Your task to perform on an android device: turn off wifi Image 0: 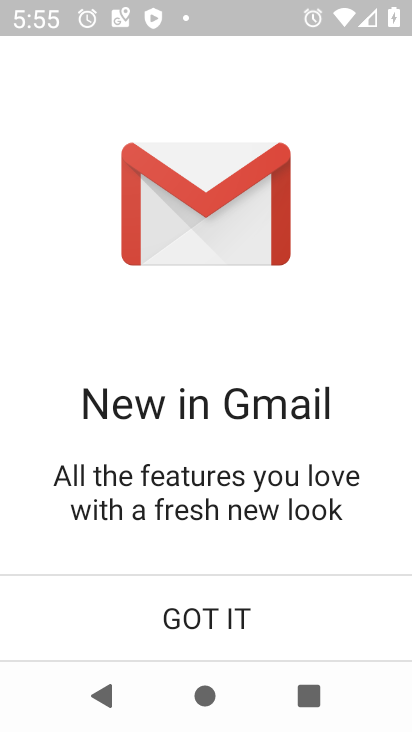
Step 0: drag from (196, 0) to (155, 493)
Your task to perform on an android device: turn off wifi Image 1: 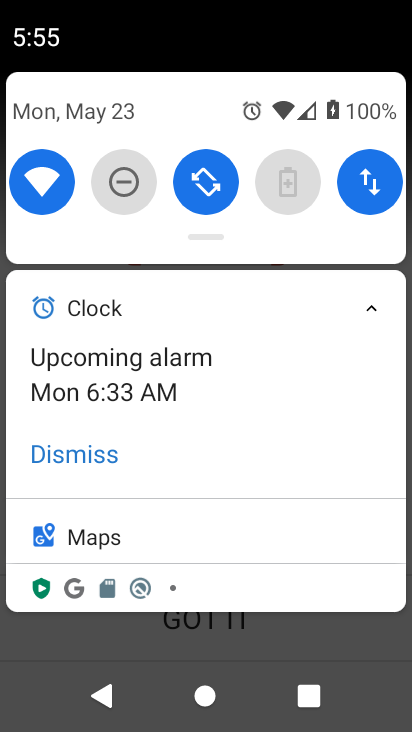
Step 1: click (33, 182)
Your task to perform on an android device: turn off wifi Image 2: 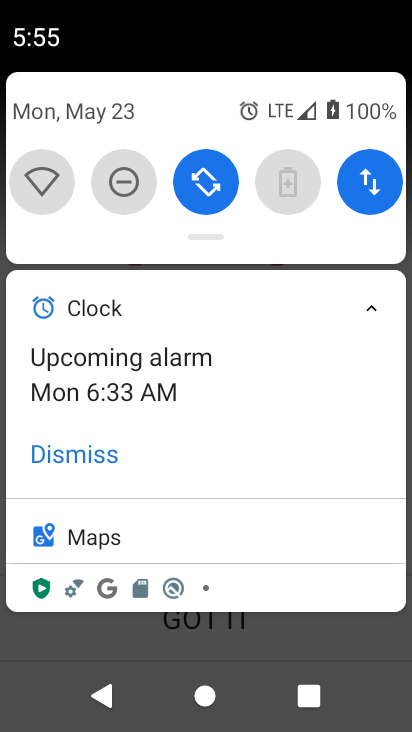
Step 2: task complete